Your task to perform on an android device: clear history in the chrome app Image 0: 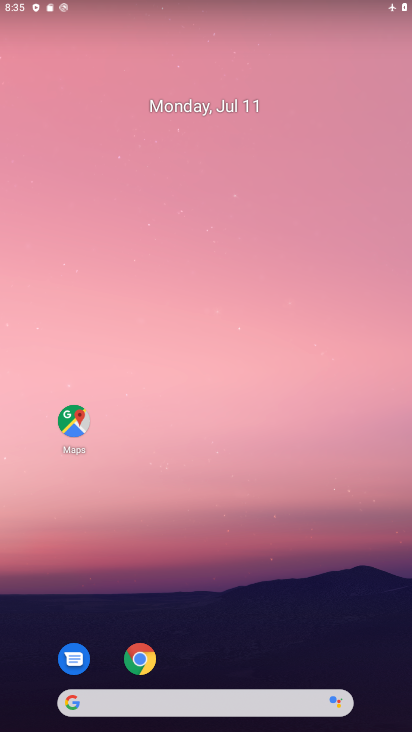
Step 0: click (127, 653)
Your task to perform on an android device: clear history in the chrome app Image 1: 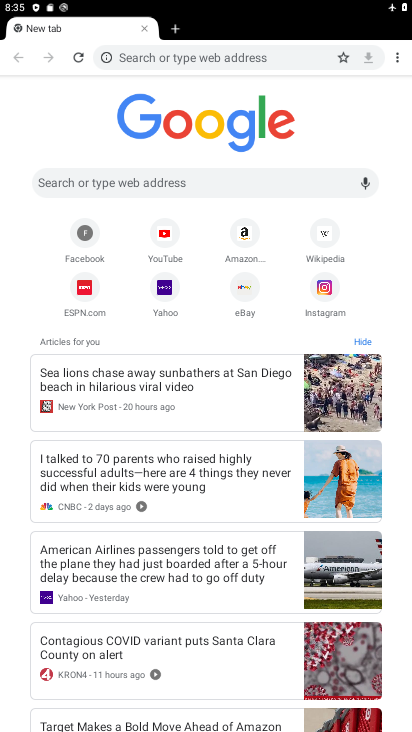
Step 1: click (394, 62)
Your task to perform on an android device: clear history in the chrome app Image 2: 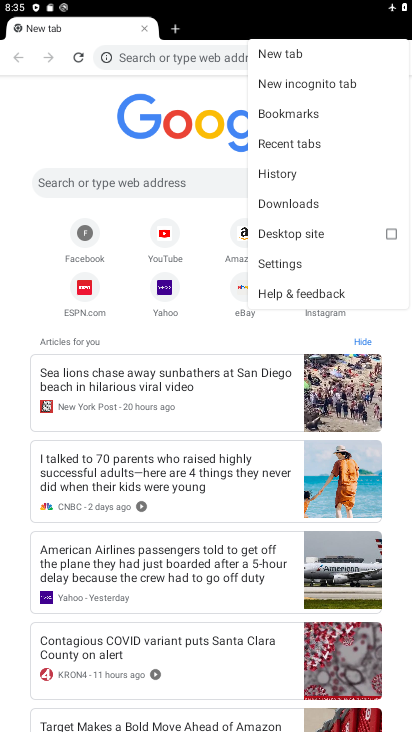
Step 2: click (284, 175)
Your task to perform on an android device: clear history in the chrome app Image 3: 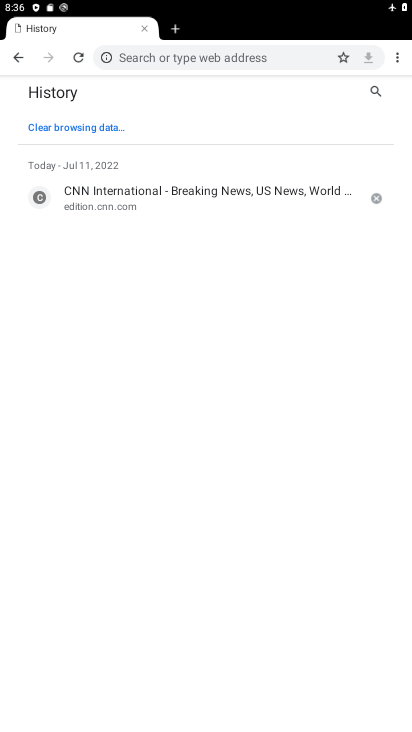
Step 3: click (97, 130)
Your task to perform on an android device: clear history in the chrome app Image 4: 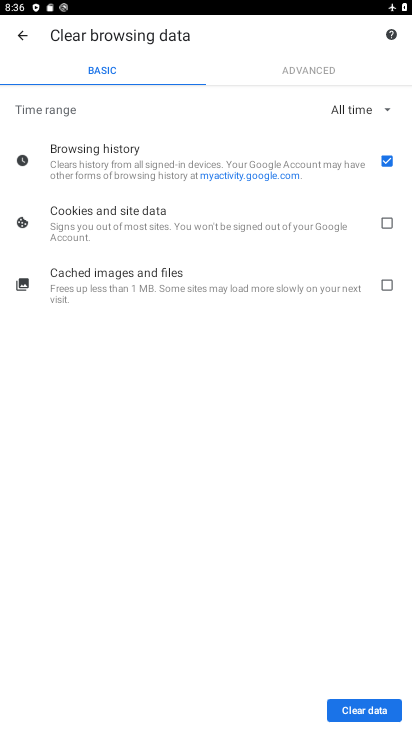
Step 4: task complete